Your task to perform on an android device: turn on translation in the chrome app Image 0: 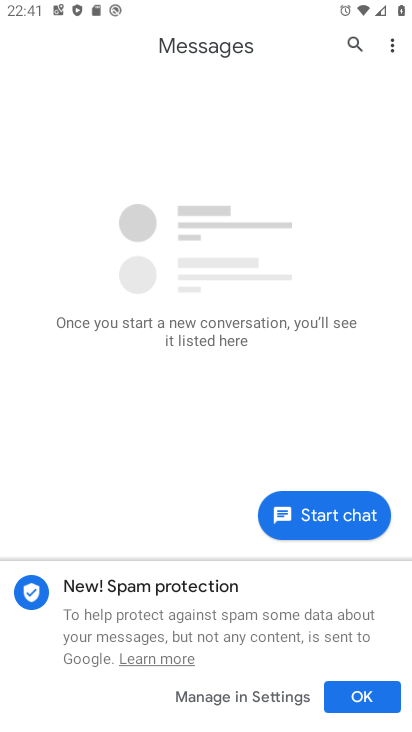
Step 0: press home button
Your task to perform on an android device: turn on translation in the chrome app Image 1: 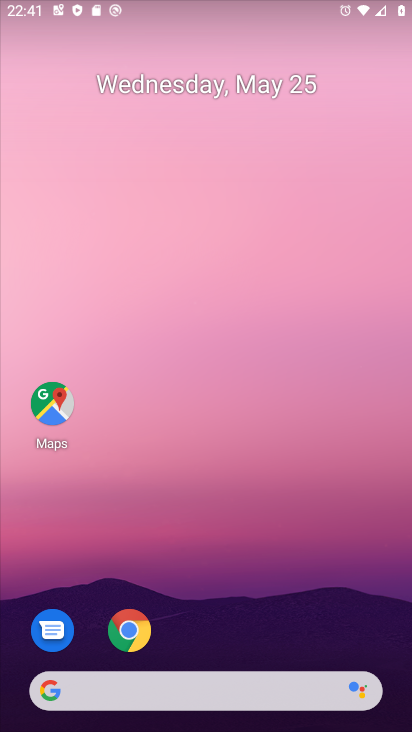
Step 1: drag from (267, 567) to (268, 141)
Your task to perform on an android device: turn on translation in the chrome app Image 2: 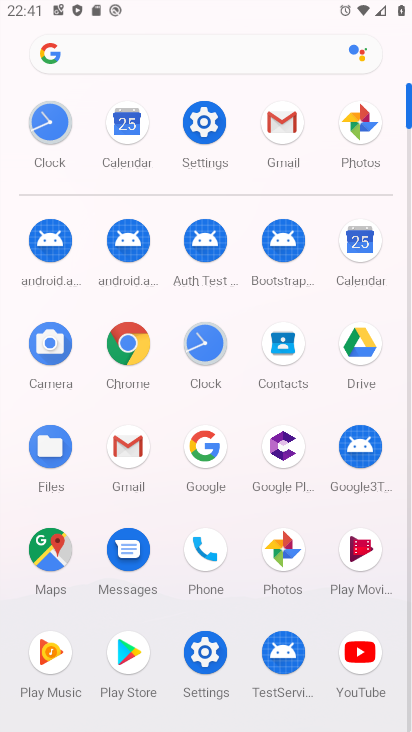
Step 2: click (138, 342)
Your task to perform on an android device: turn on translation in the chrome app Image 3: 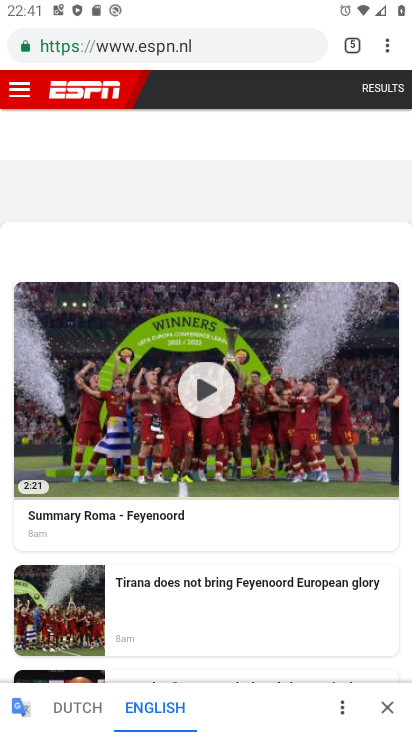
Step 3: click (392, 43)
Your task to perform on an android device: turn on translation in the chrome app Image 4: 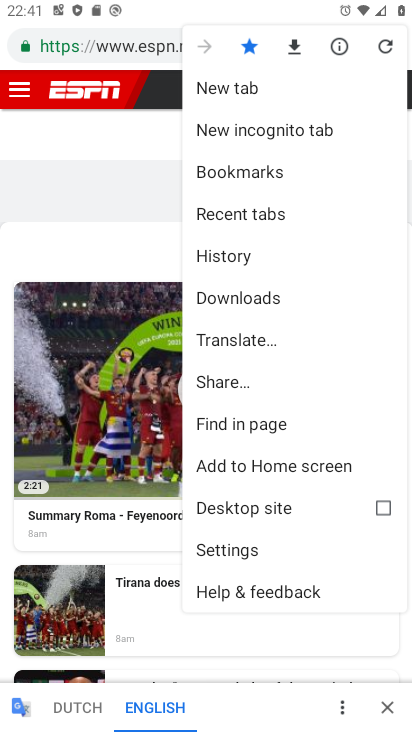
Step 4: click (244, 545)
Your task to perform on an android device: turn on translation in the chrome app Image 5: 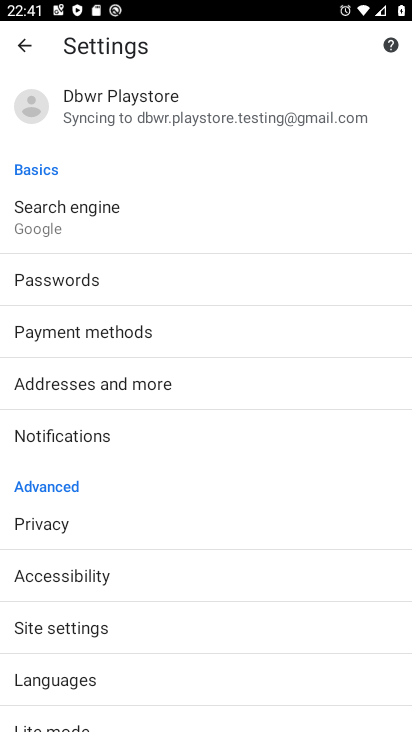
Step 5: drag from (222, 632) to (247, 335)
Your task to perform on an android device: turn on translation in the chrome app Image 6: 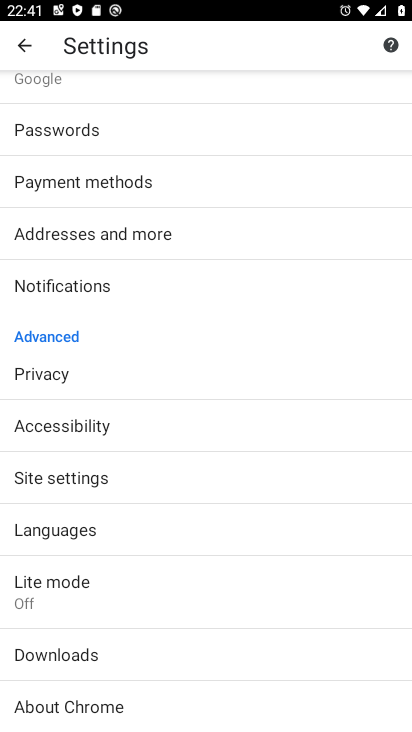
Step 6: click (101, 528)
Your task to perform on an android device: turn on translation in the chrome app Image 7: 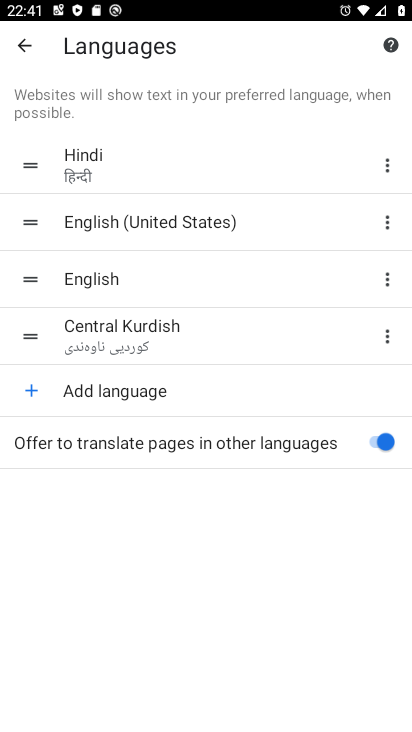
Step 7: click (365, 443)
Your task to perform on an android device: turn on translation in the chrome app Image 8: 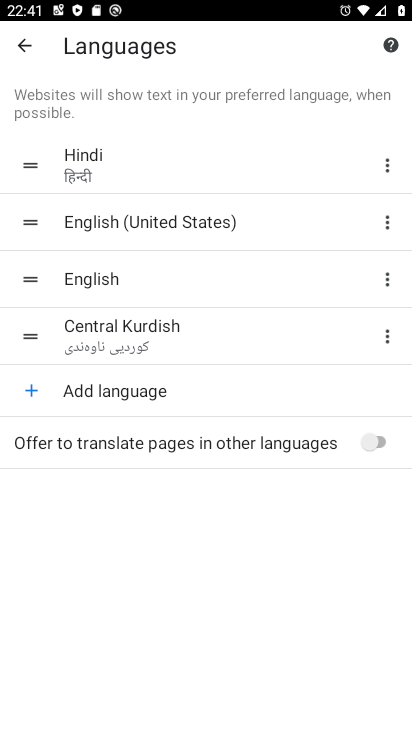
Step 8: click (391, 439)
Your task to perform on an android device: turn on translation in the chrome app Image 9: 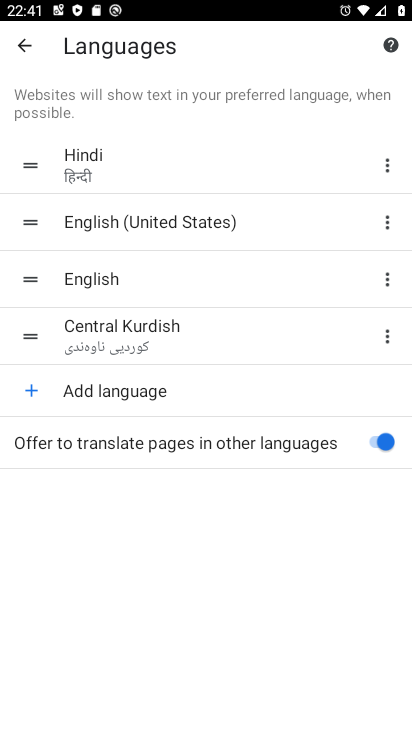
Step 9: task complete